Your task to perform on an android device: Do I have any events tomorrow? Image 0: 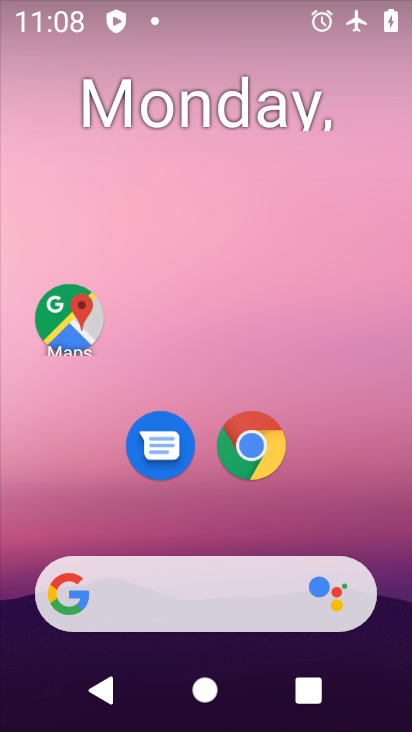
Step 0: drag from (286, 494) to (184, 246)
Your task to perform on an android device: Do I have any events tomorrow? Image 1: 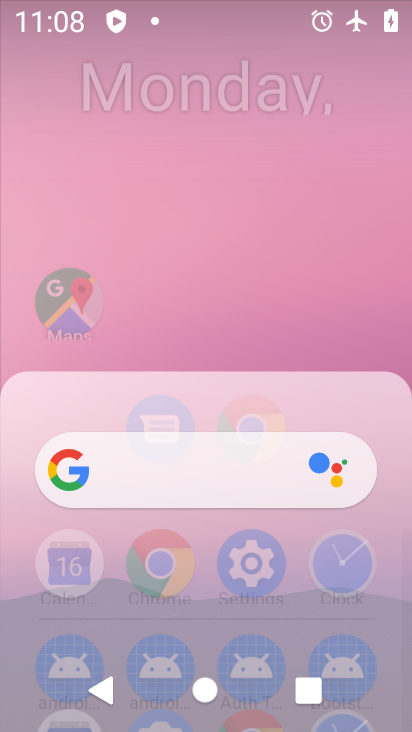
Step 1: click (74, 138)
Your task to perform on an android device: Do I have any events tomorrow? Image 2: 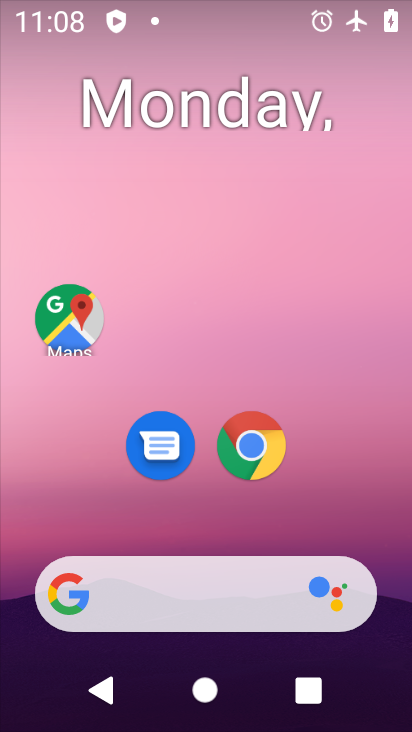
Step 2: drag from (294, 493) to (288, 101)
Your task to perform on an android device: Do I have any events tomorrow? Image 3: 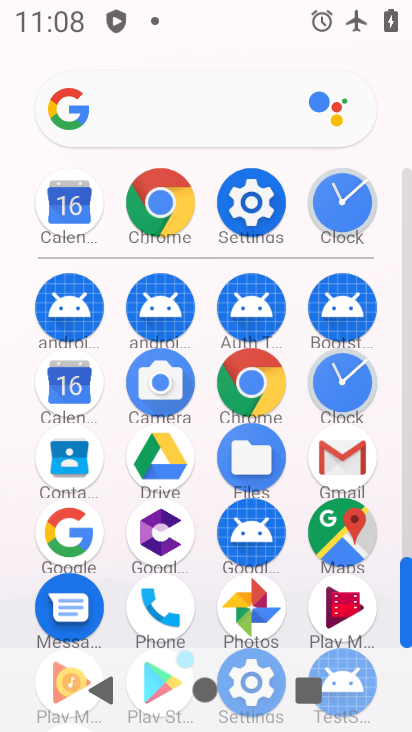
Step 3: click (67, 218)
Your task to perform on an android device: Do I have any events tomorrow? Image 4: 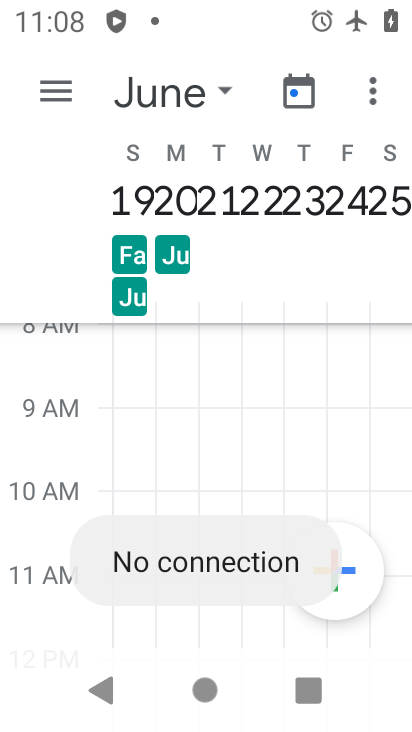
Step 4: click (179, 107)
Your task to perform on an android device: Do I have any events tomorrow? Image 5: 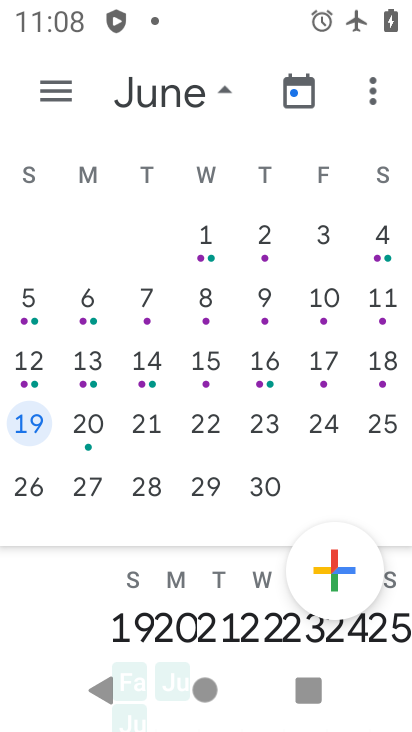
Step 5: drag from (16, 336) to (132, 307)
Your task to perform on an android device: Do I have any events tomorrow? Image 6: 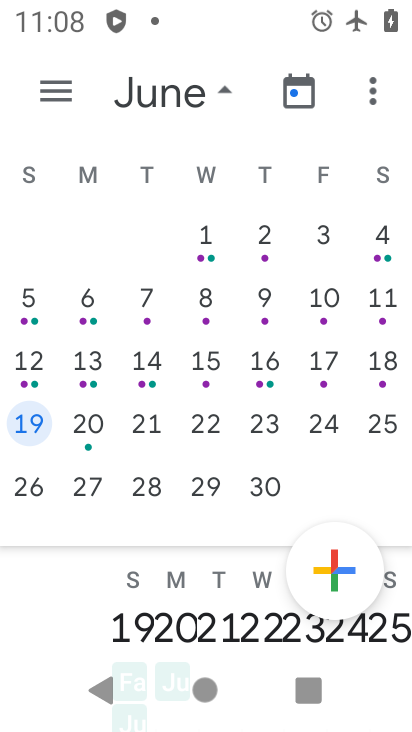
Step 6: drag from (35, 308) to (349, 308)
Your task to perform on an android device: Do I have any events tomorrow? Image 7: 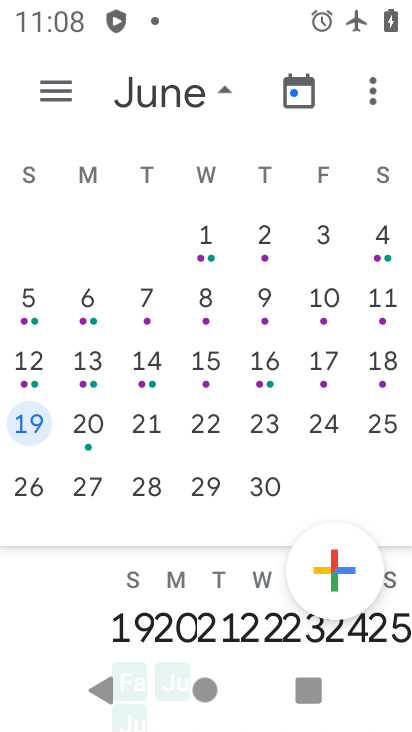
Step 7: drag from (106, 282) to (335, 233)
Your task to perform on an android device: Do I have any events tomorrow? Image 8: 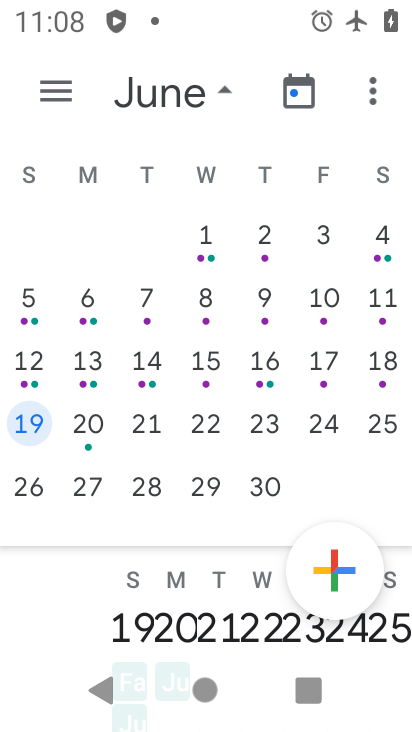
Step 8: drag from (70, 379) to (410, 372)
Your task to perform on an android device: Do I have any events tomorrow? Image 9: 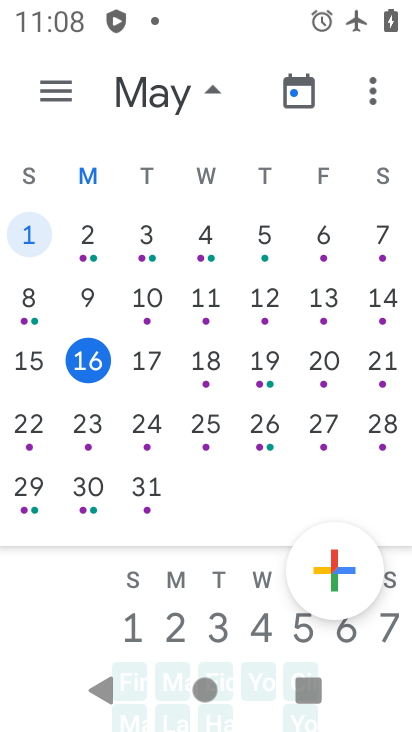
Step 9: click (149, 361)
Your task to perform on an android device: Do I have any events tomorrow? Image 10: 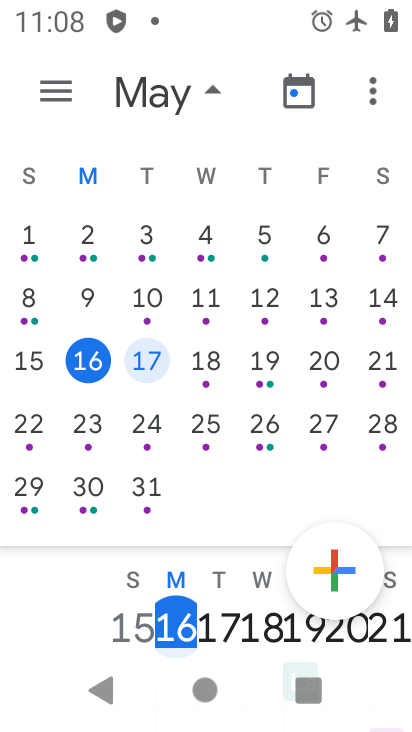
Step 10: task complete